Your task to perform on an android device: move a message to another label in the gmail app Image 0: 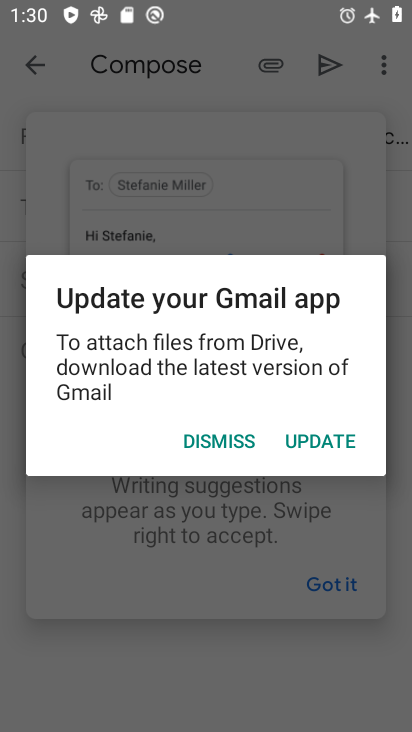
Step 0: press home button
Your task to perform on an android device: move a message to another label in the gmail app Image 1: 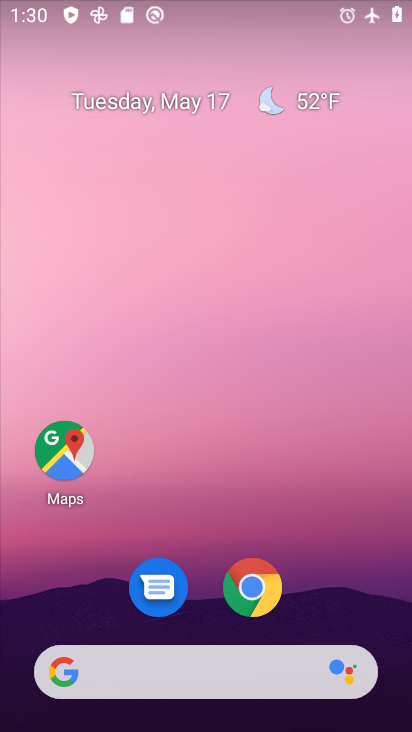
Step 1: drag from (348, 586) to (306, 85)
Your task to perform on an android device: move a message to another label in the gmail app Image 2: 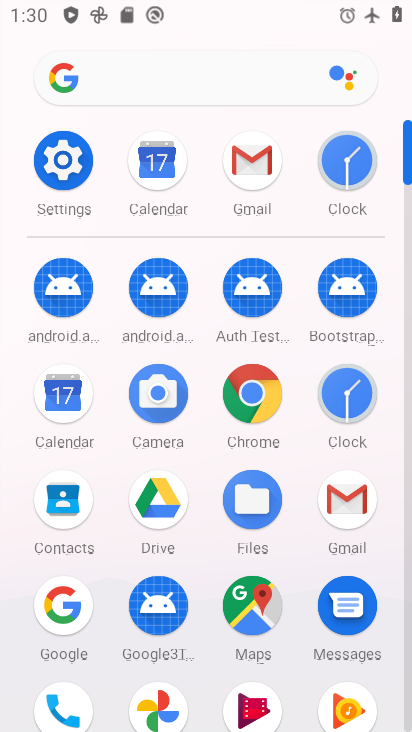
Step 2: click (248, 196)
Your task to perform on an android device: move a message to another label in the gmail app Image 3: 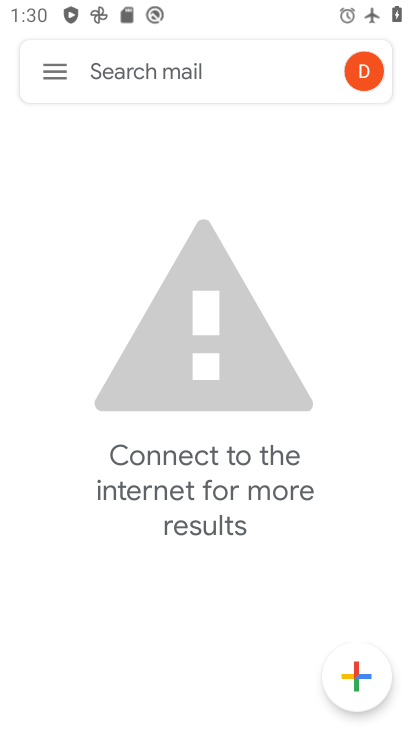
Step 3: click (54, 77)
Your task to perform on an android device: move a message to another label in the gmail app Image 4: 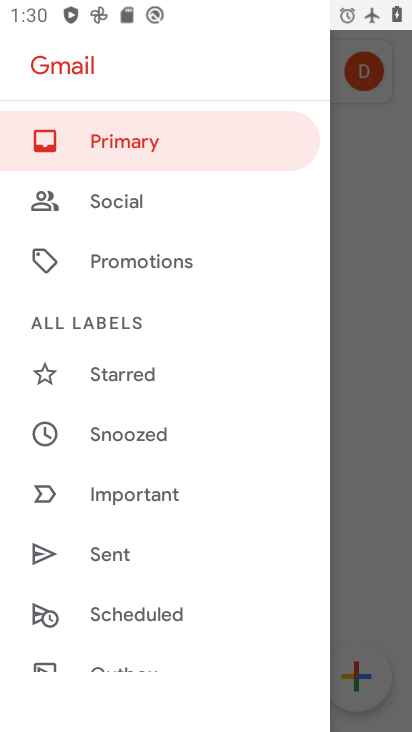
Step 4: drag from (134, 636) to (139, 494)
Your task to perform on an android device: move a message to another label in the gmail app Image 5: 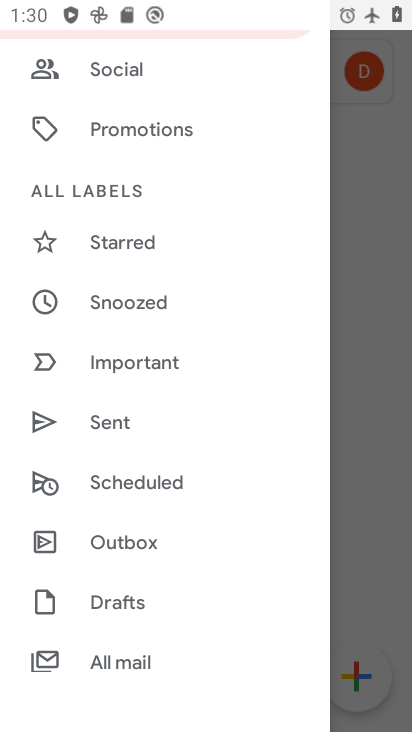
Step 5: click (120, 663)
Your task to perform on an android device: move a message to another label in the gmail app Image 6: 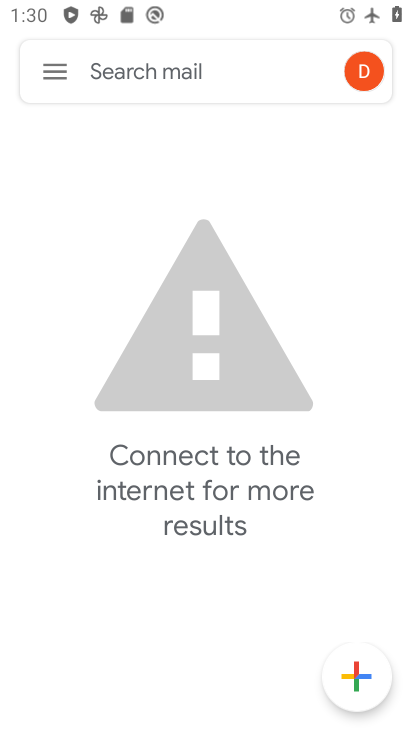
Step 6: task complete